Your task to perform on an android device: Install the CNN app Image 0: 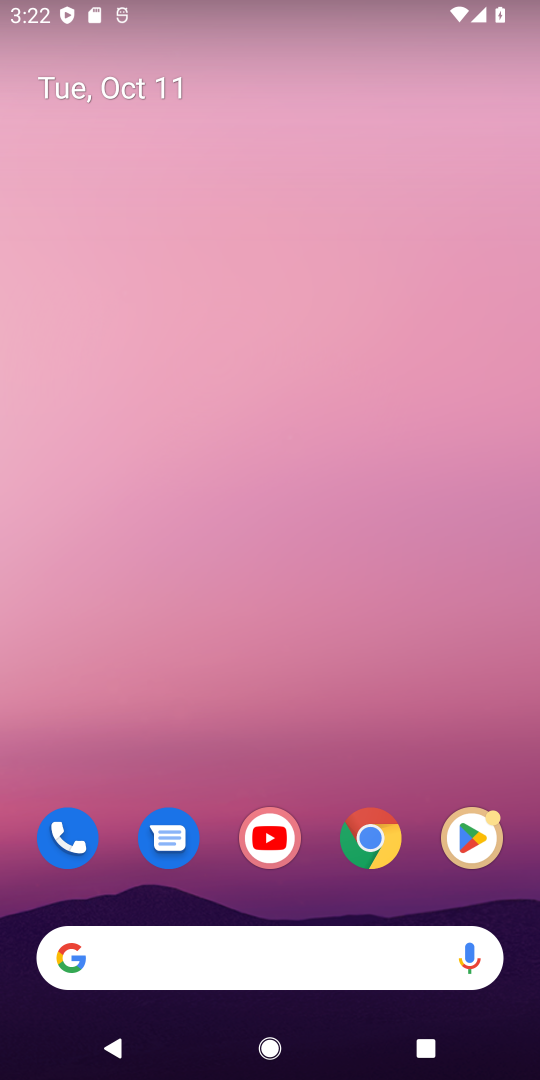
Step 0: click (481, 846)
Your task to perform on an android device: Install the CNN app Image 1: 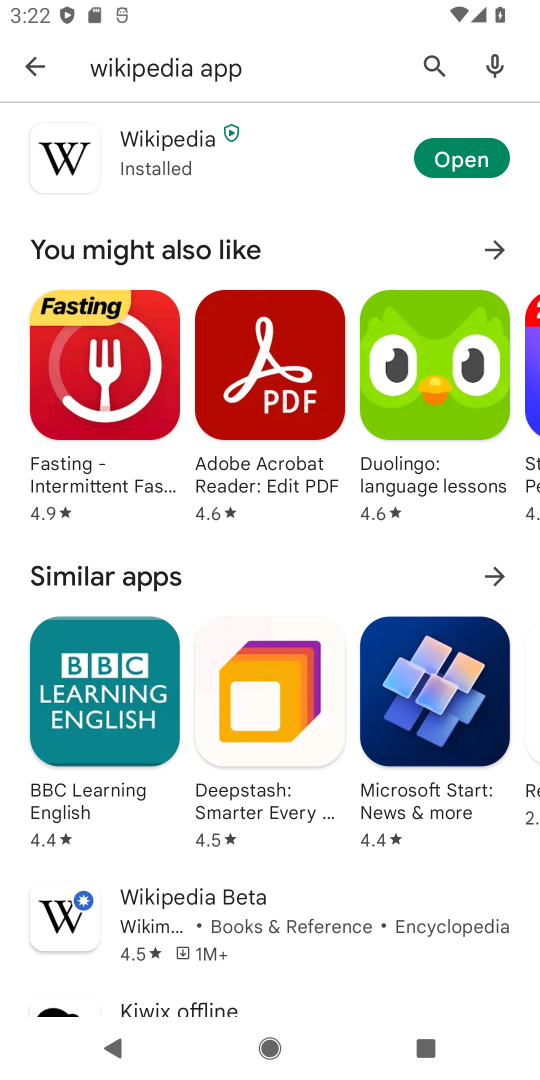
Step 1: click (436, 69)
Your task to perform on an android device: Install the CNN app Image 2: 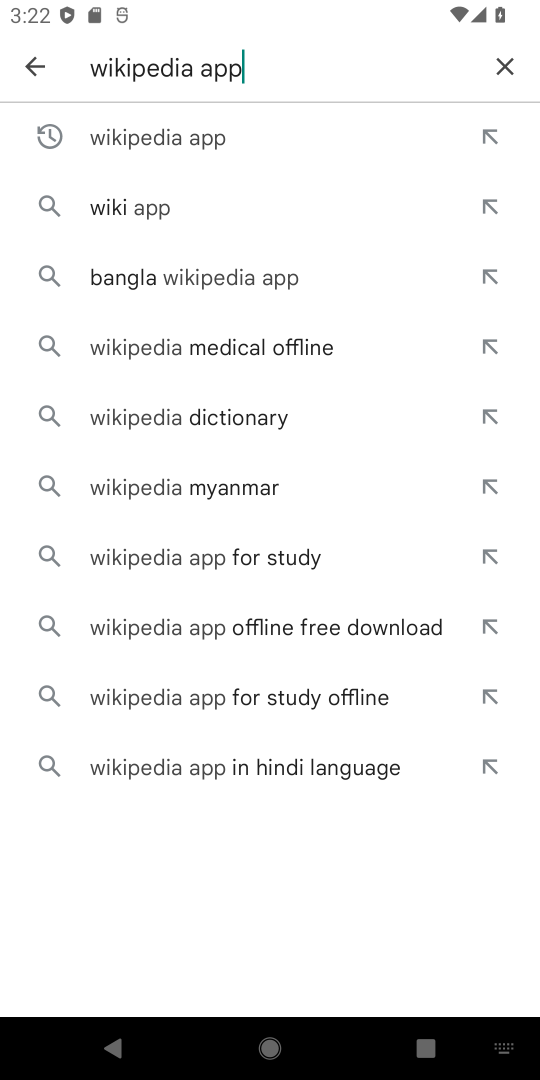
Step 2: click (492, 61)
Your task to perform on an android device: Install the CNN app Image 3: 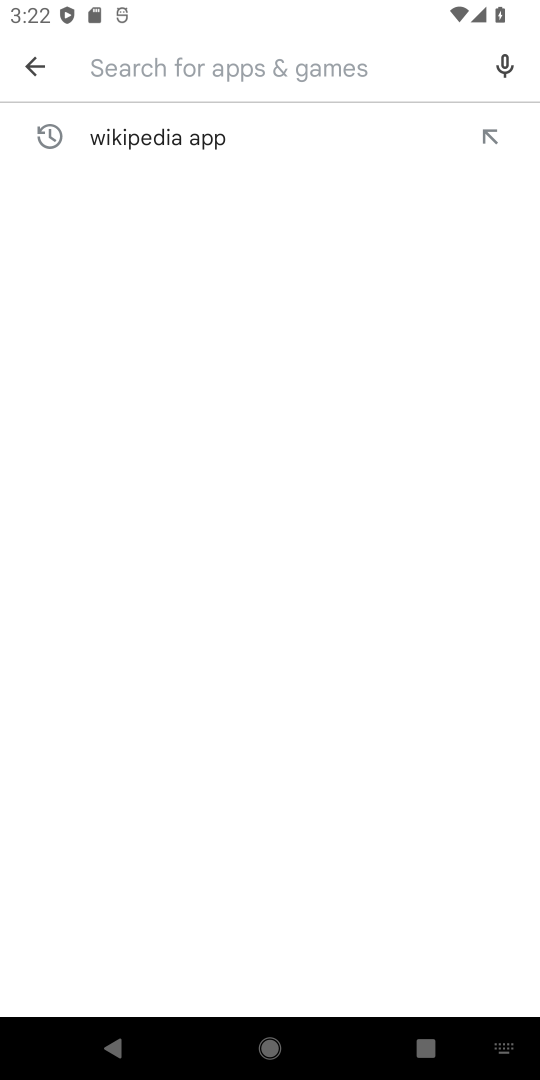
Step 3: type "CNN app"
Your task to perform on an android device: Install the CNN app Image 4: 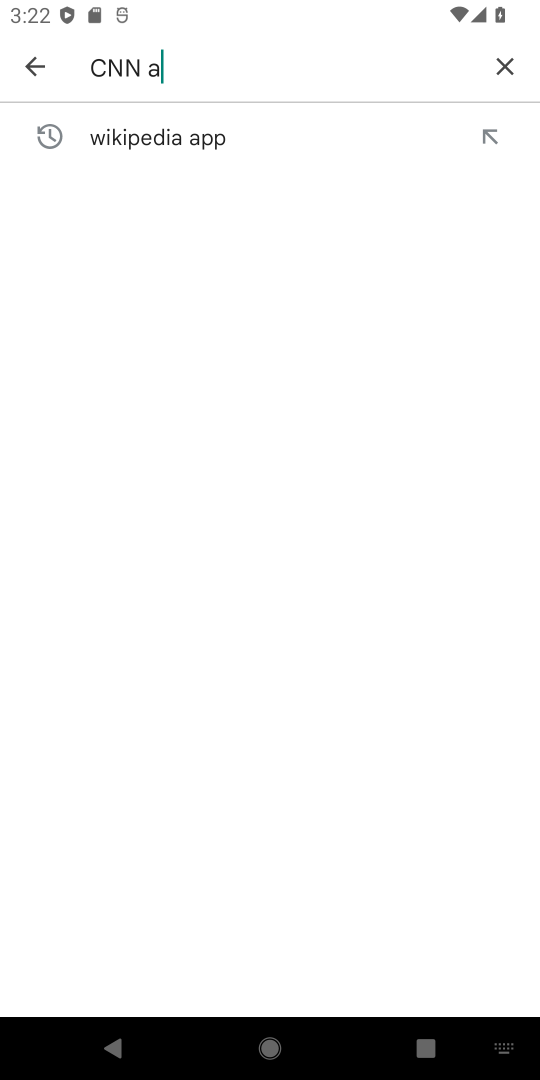
Step 4: type ""
Your task to perform on an android device: Install the CNN app Image 5: 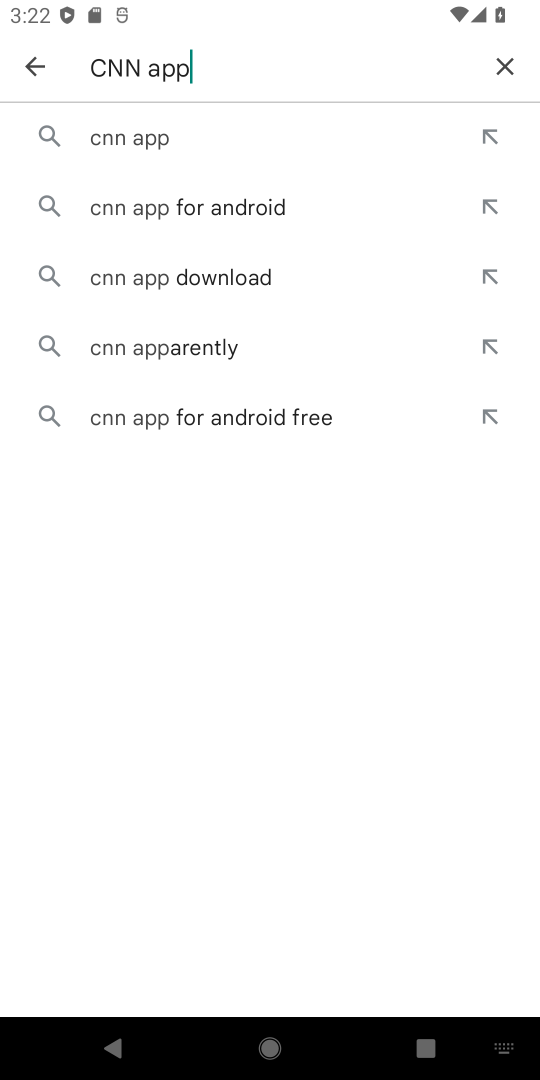
Step 5: click (185, 147)
Your task to perform on an android device: Install the CNN app Image 6: 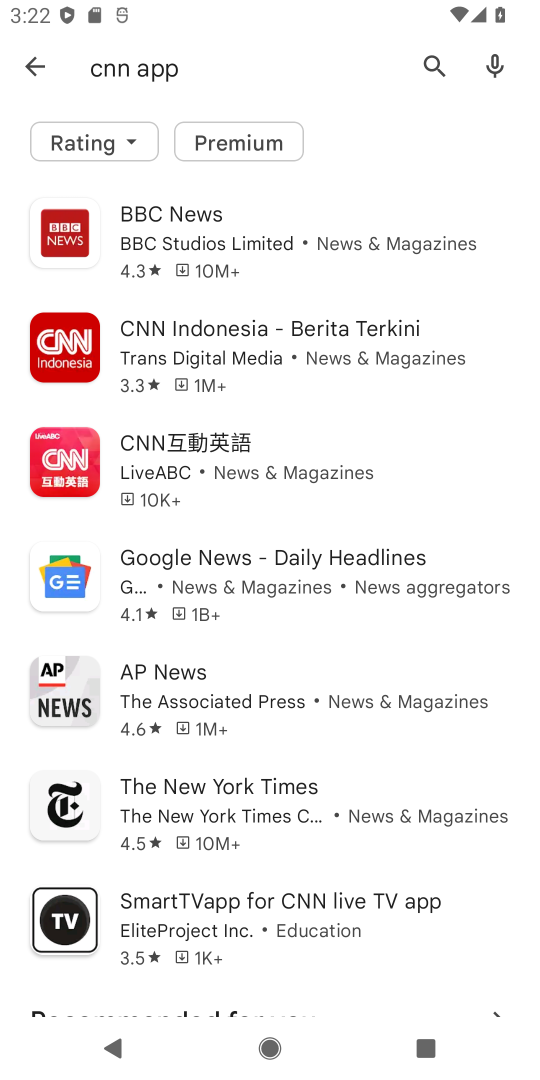
Step 6: click (314, 357)
Your task to perform on an android device: Install the CNN app Image 7: 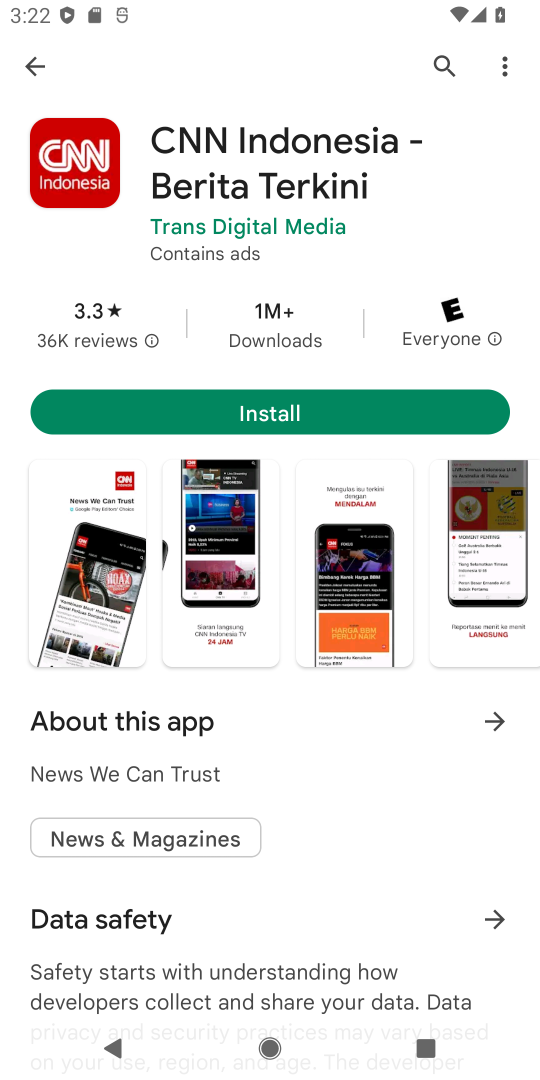
Step 7: click (328, 394)
Your task to perform on an android device: Install the CNN app Image 8: 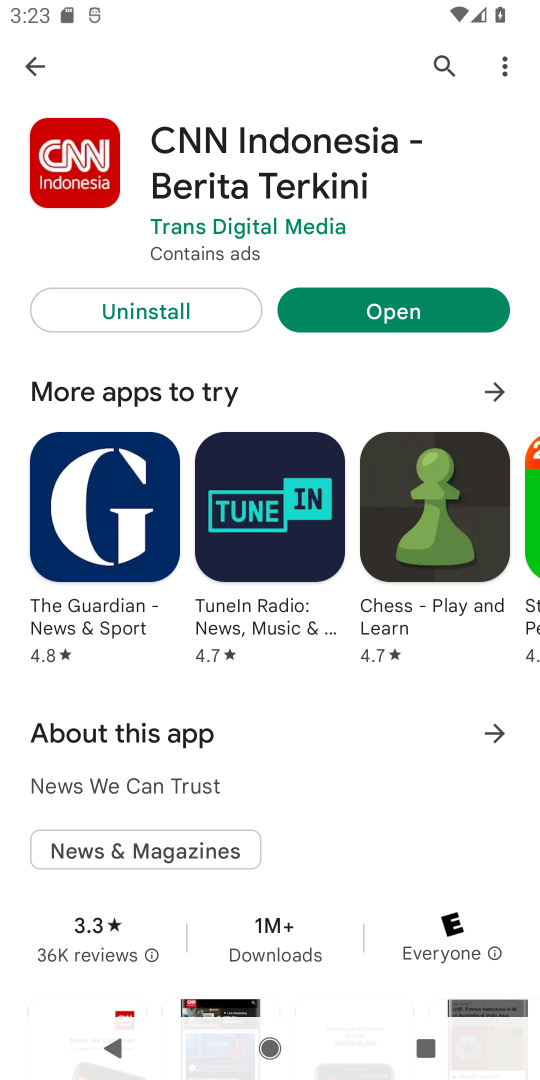
Step 8: task complete